Your task to perform on an android device: check android version Image 0: 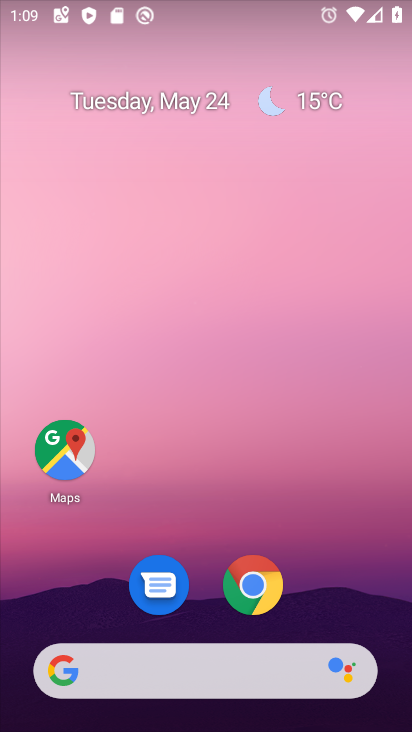
Step 0: drag from (233, 495) to (254, 55)
Your task to perform on an android device: check android version Image 1: 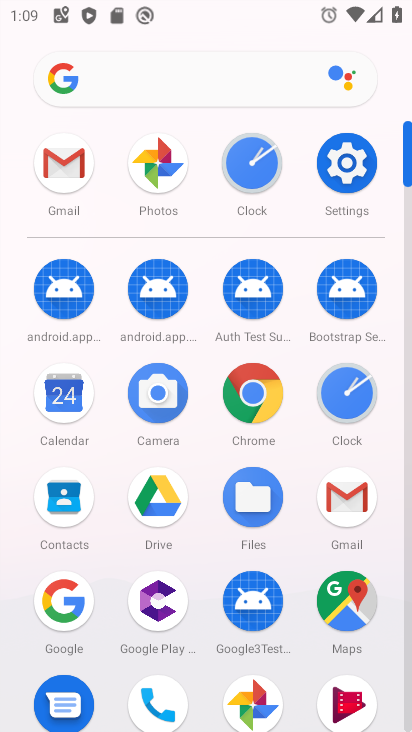
Step 1: click (345, 155)
Your task to perform on an android device: check android version Image 2: 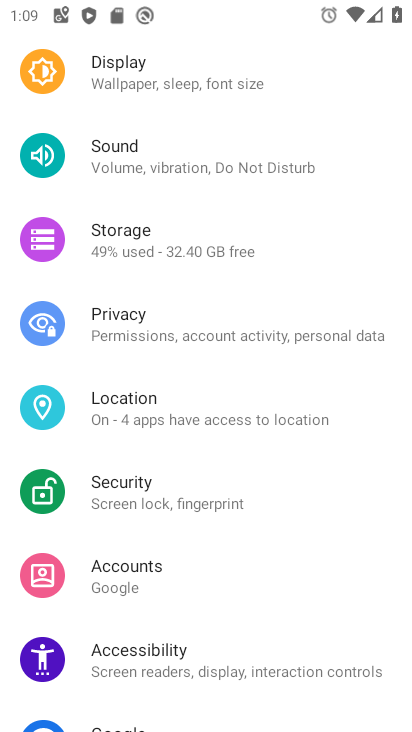
Step 2: drag from (279, 576) to (312, 167)
Your task to perform on an android device: check android version Image 3: 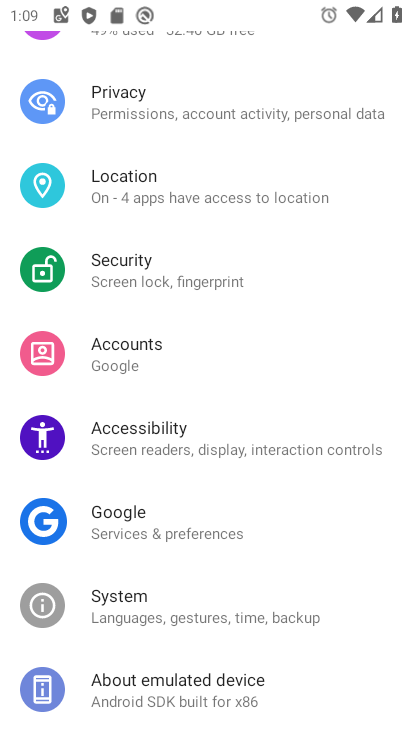
Step 3: click (205, 685)
Your task to perform on an android device: check android version Image 4: 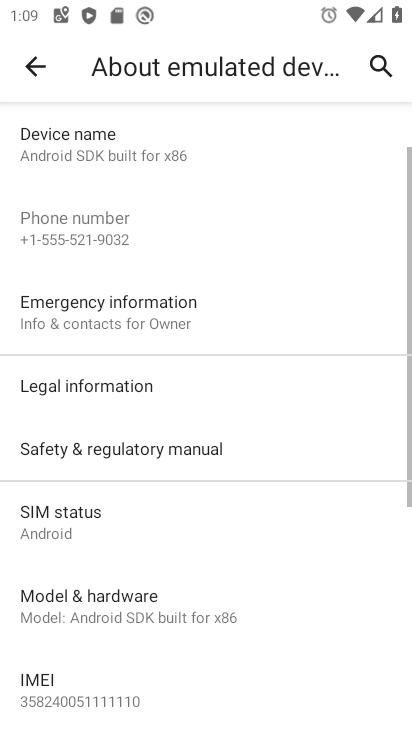
Step 4: drag from (272, 509) to (263, 225)
Your task to perform on an android device: check android version Image 5: 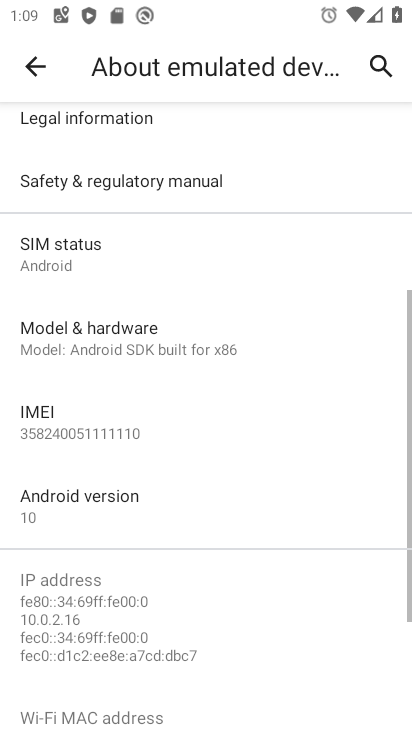
Step 5: click (149, 519)
Your task to perform on an android device: check android version Image 6: 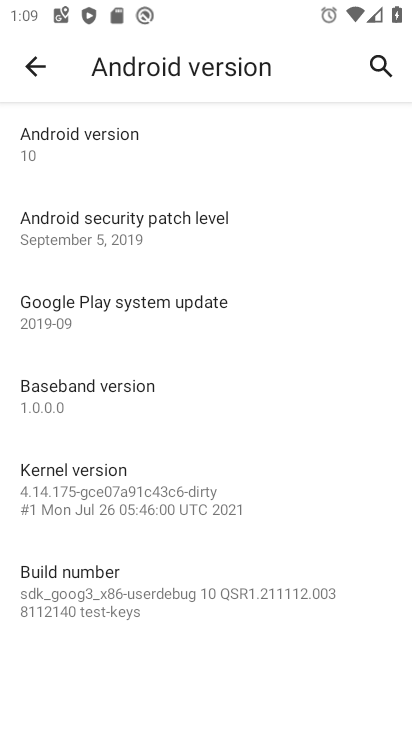
Step 6: task complete